Your task to perform on an android device: Open display settings Image 0: 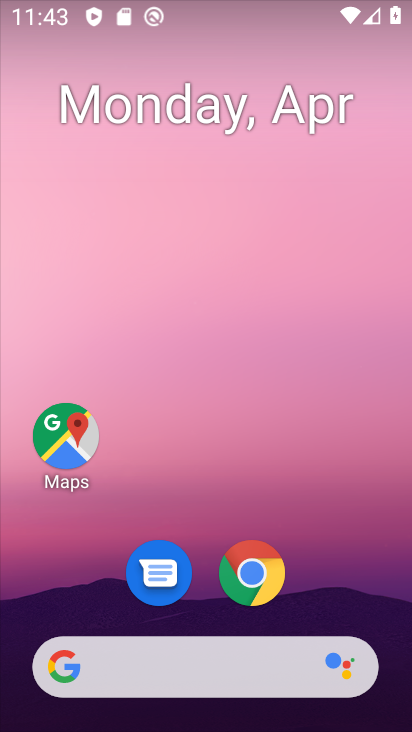
Step 0: drag from (206, 623) to (209, 1)
Your task to perform on an android device: Open display settings Image 1: 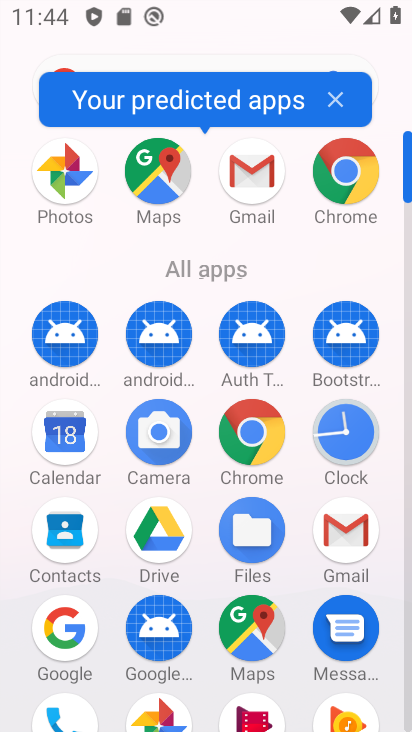
Step 1: drag from (204, 498) to (198, 71)
Your task to perform on an android device: Open display settings Image 2: 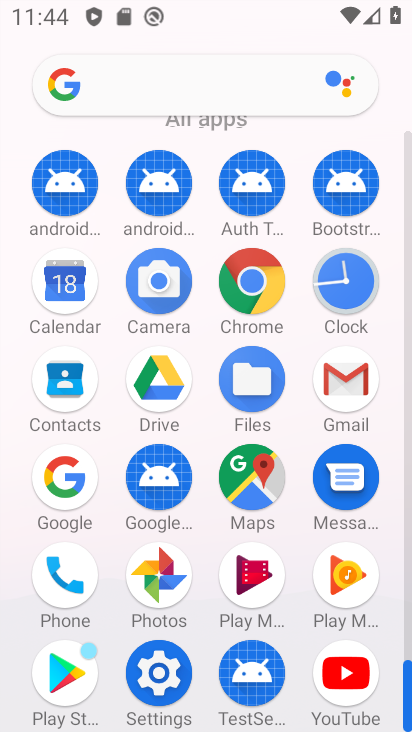
Step 2: click (169, 665)
Your task to perform on an android device: Open display settings Image 3: 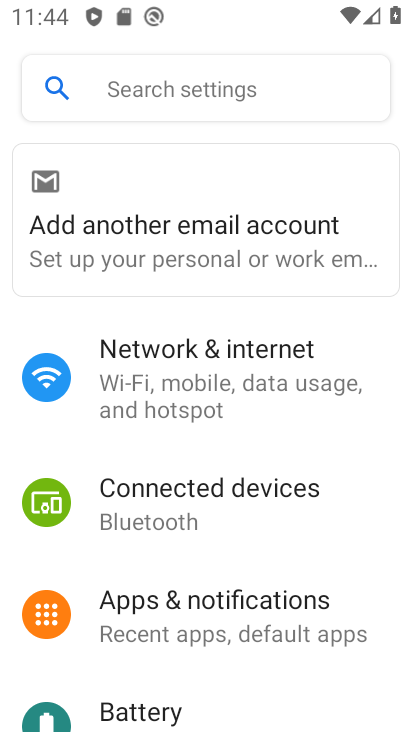
Step 3: drag from (177, 683) to (140, 184)
Your task to perform on an android device: Open display settings Image 4: 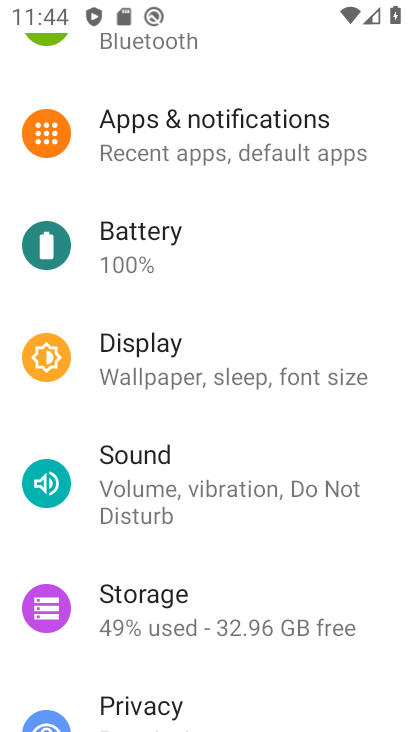
Step 4: click (149, 381)
Your task to perform on an android device: Open display settings Image 5: 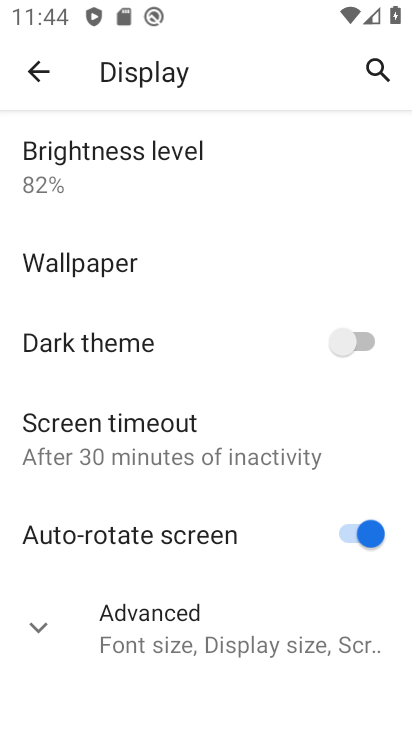
Step 5: click (159, 589)
Your task to perform on an android device: Open display settings Image 6: 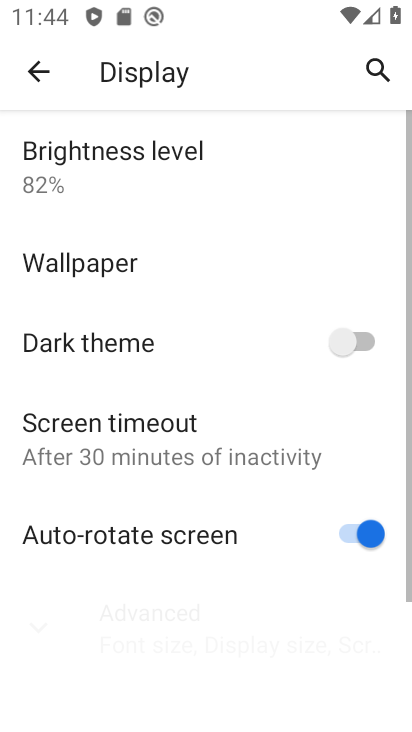
Step 6: task complete